Your task to perform on an android device: set default search engine in the chrome app Image 0: 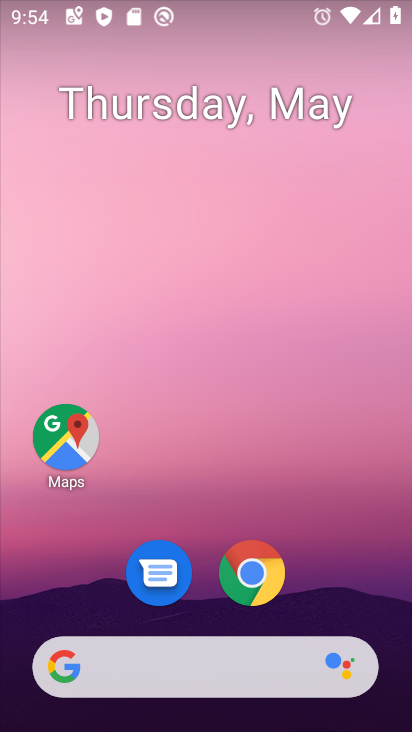
Step 0: click (246, 556)
Your task to perform on an android device: set default search engine in the chrome app Image 1: 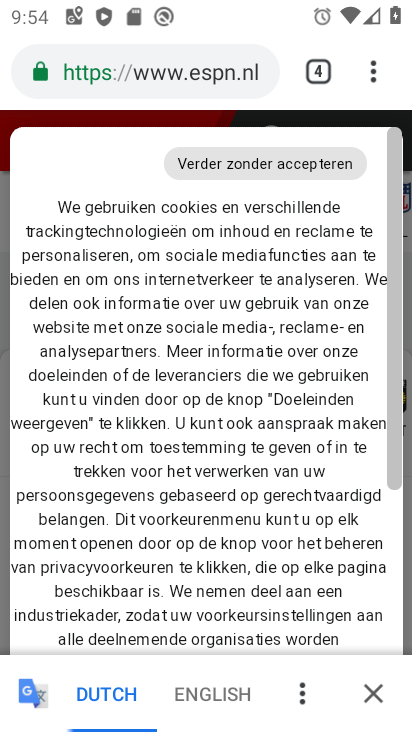
Step 1: click (380, 67)
Your task to perform on an android device: set default search engine in the chrome app Image 2: 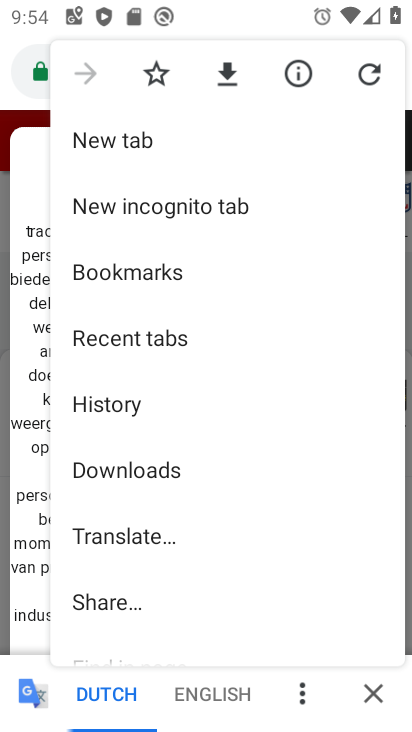
Step 2: drag from (213, 611) to (237, 274)
Your task to perform on an android device: set default search engine in the chrome app Image 3: 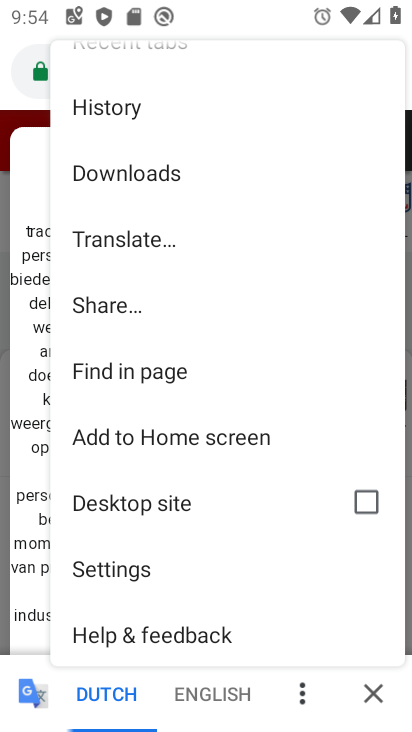
Step 3: click (88, 556)
Your task to perform on an android device: set default search engine in the chrome app Image 4: 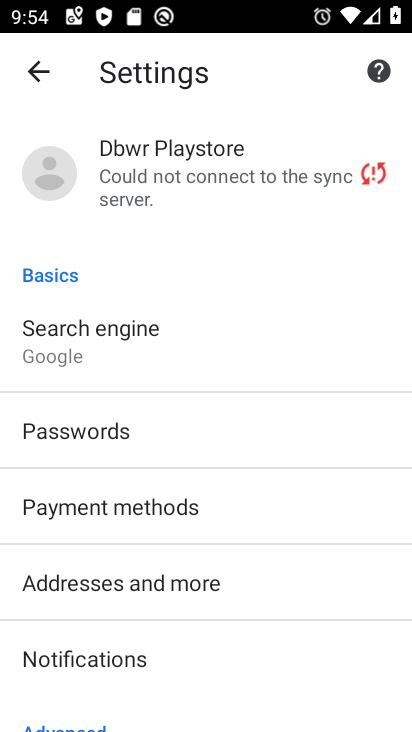
Step 4: click (132, 333)
Your task to perform on an android device: set default search engine in the chrome app Image 5: 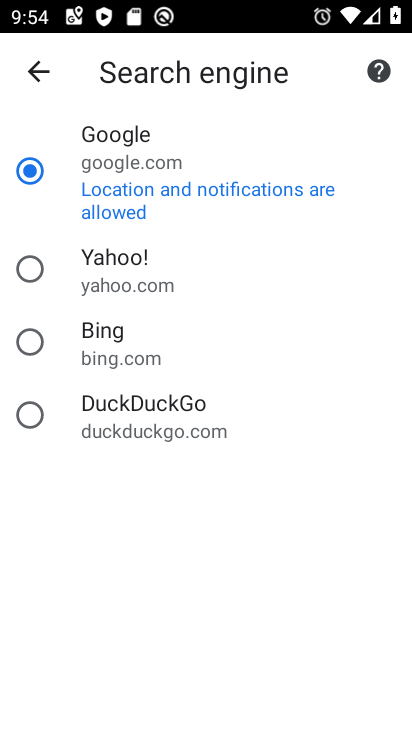
Step 5: click (44, 272)
Your task to perform on an android device: set default search engine in the chrome app Image 6: 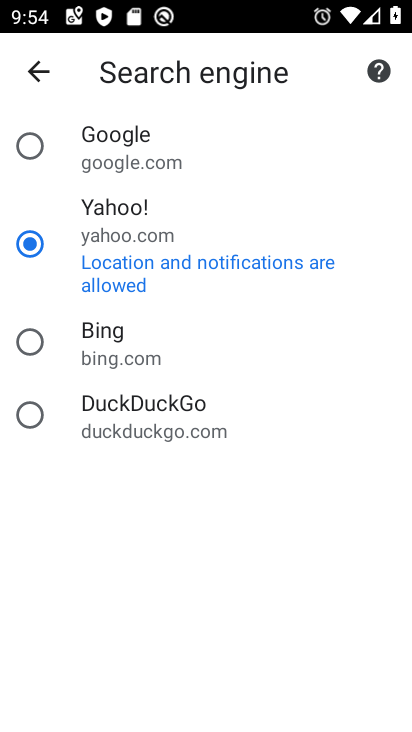
Step 6: task complete